Your task to perform on an android device: Do I have any events today? Image 0: 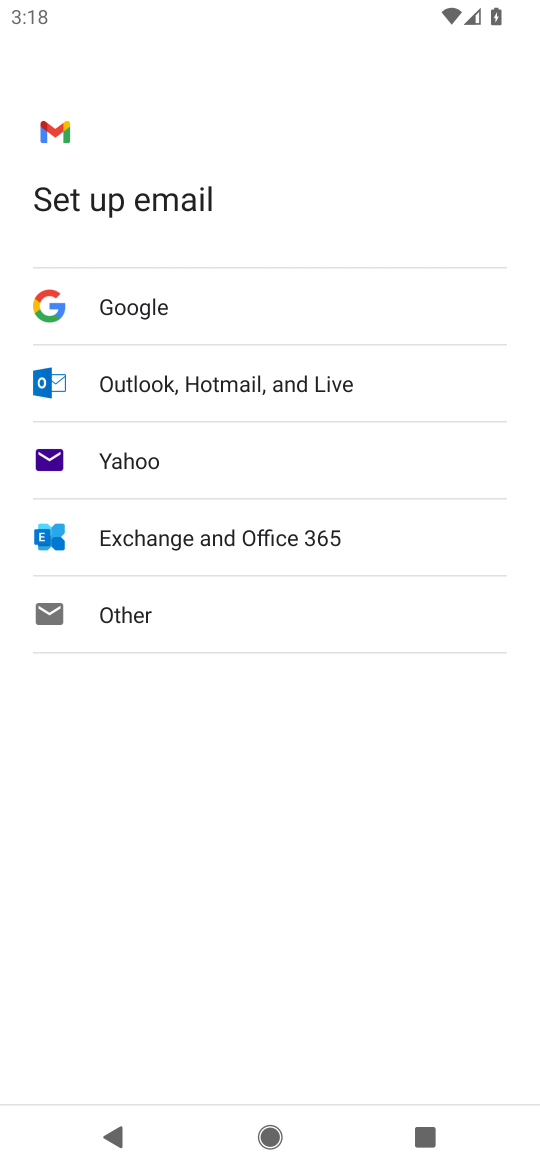
Step 0: press back button
Your task to perform on an android device: Do I have any events today? Image 1: 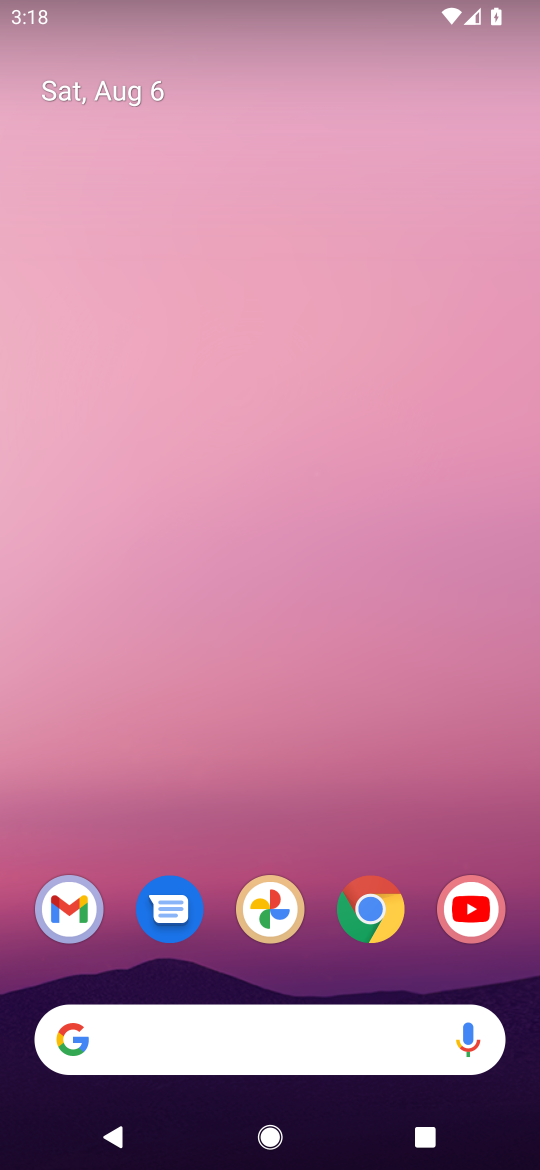
Step 1: drag from (216, 824) to (480, 4)
Your task to perform on an android device: Do I have any events today? Image 2: 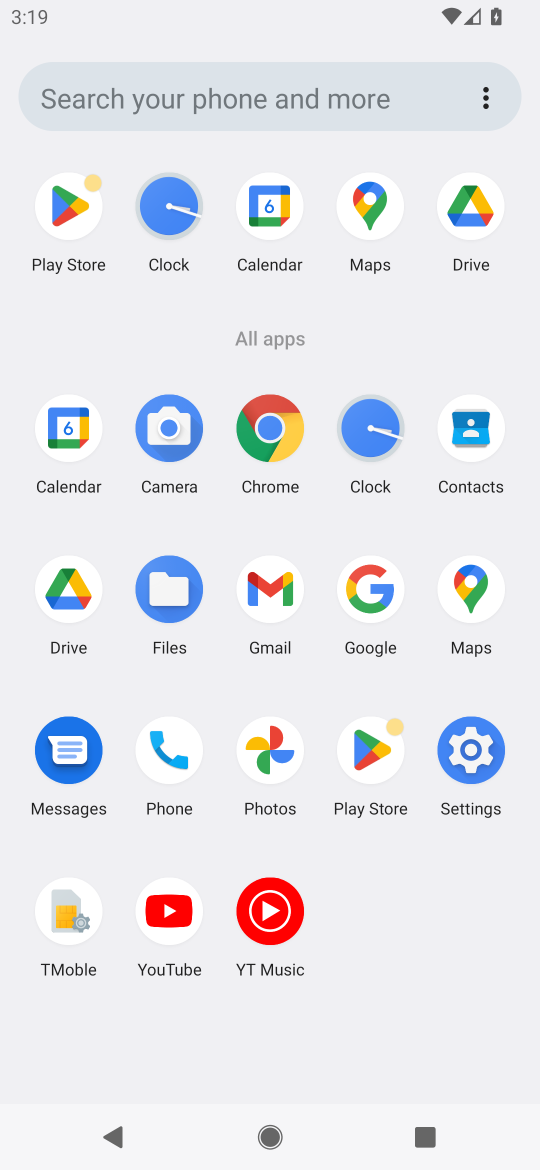
Step 2: click (70, 430)
Your task to perform on an android device: Do I have any events today? Image 3: 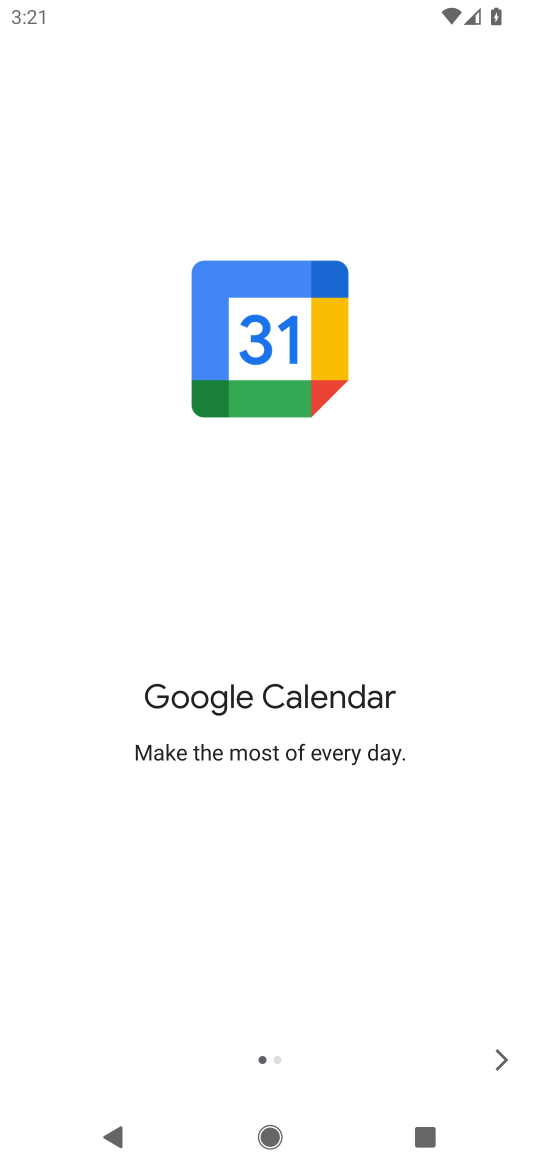
Step 3: click (510, 1071)
Your task to perform on an android device: Do I have any events today? Image 4: 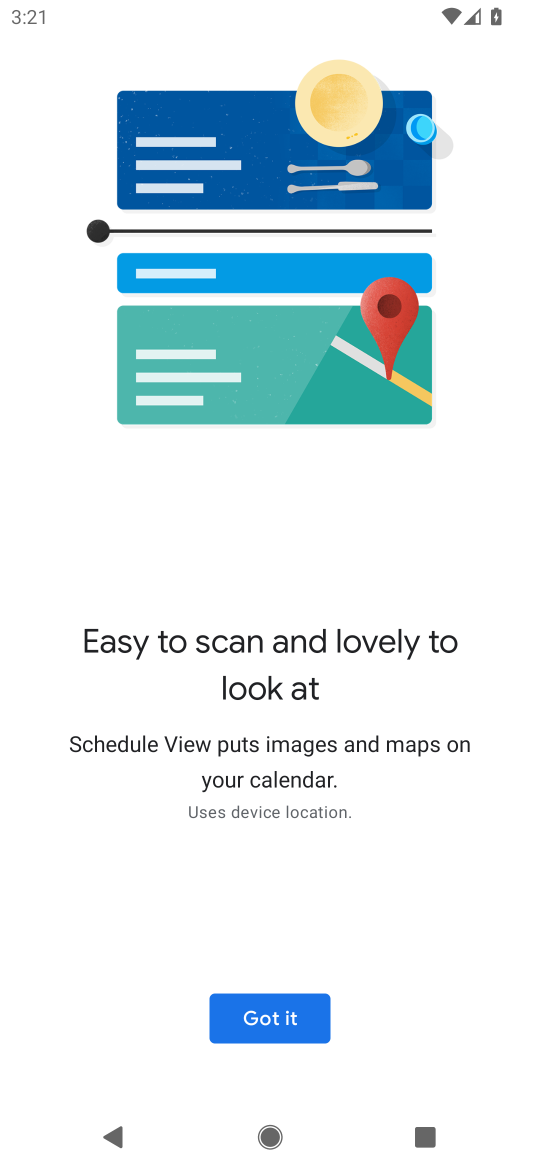
Step 4: click (221, 1001)
Your task to perform on an android device: Do I have any events today? Image 5: 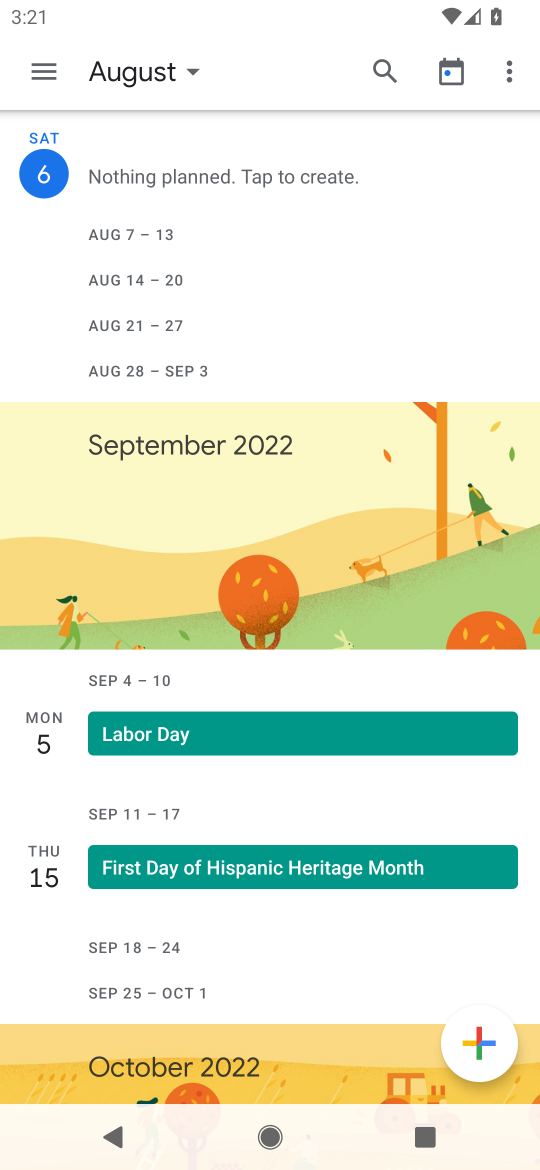
Step 5: task complete